Your task to perform on an android device: Go to privacy settings Image 0: 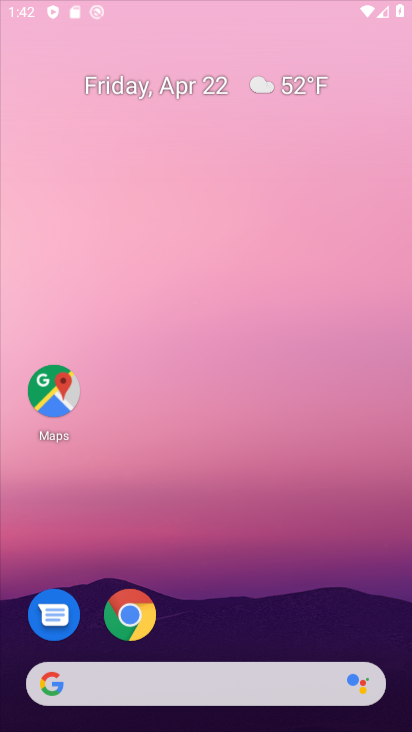
Step 0: click (335, 79)
Your task to perform on an android device: Go to privacy settings Image 1: 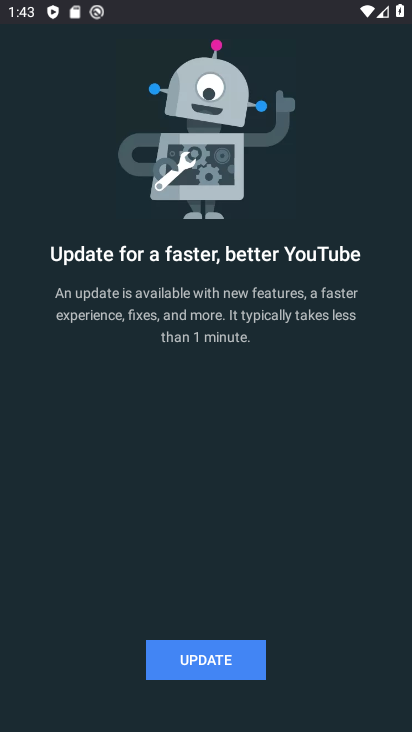
Step 1: press back button
Your task to perform on an android device: Go to privacy settings Image 2: 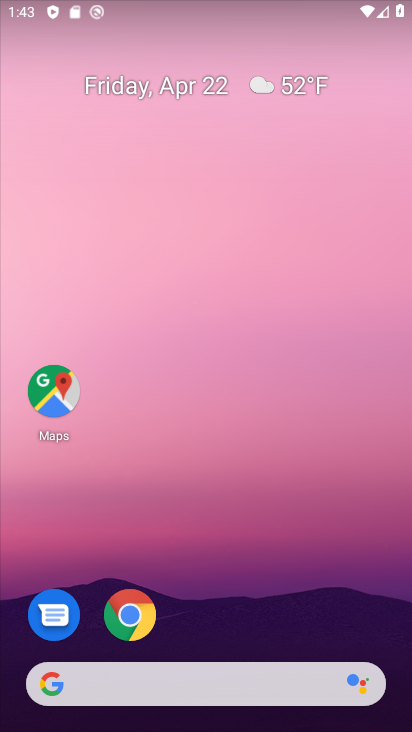
Step 2: click (129, 620)
Your task to perform on an android device: Go to privacy settings Image 3: 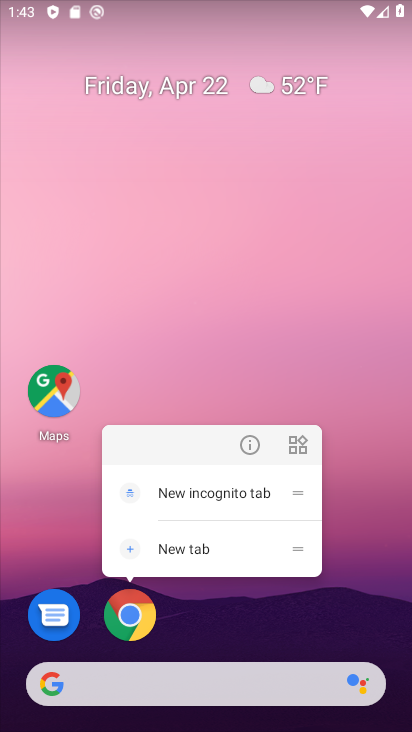
Step 3: click (129, 619)
Your task to perform on an android device: Go to privacy settings Image 4: 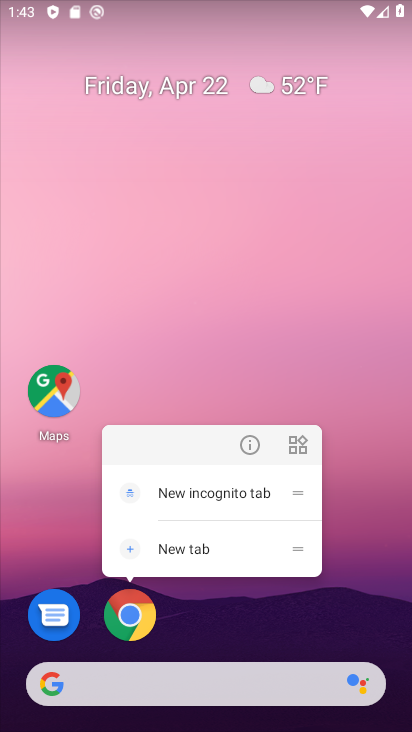
Step 4: click (129, 617)
Your task to perform on an android device: Go to privacy settings Image 5: 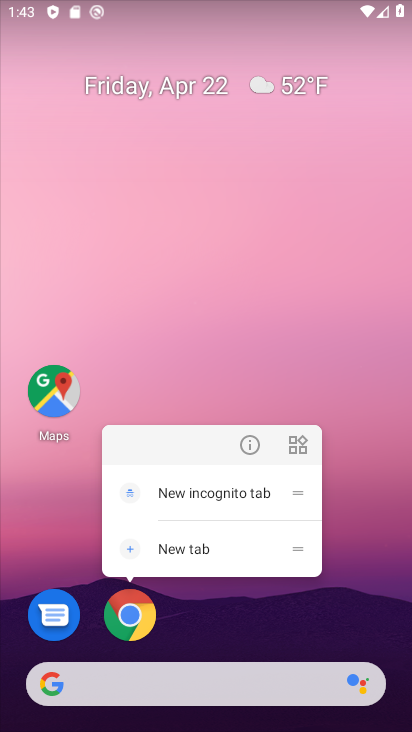
Step 5: click (144, 620)
Your task to perform on an android device: Go to privacy settings Image 6: 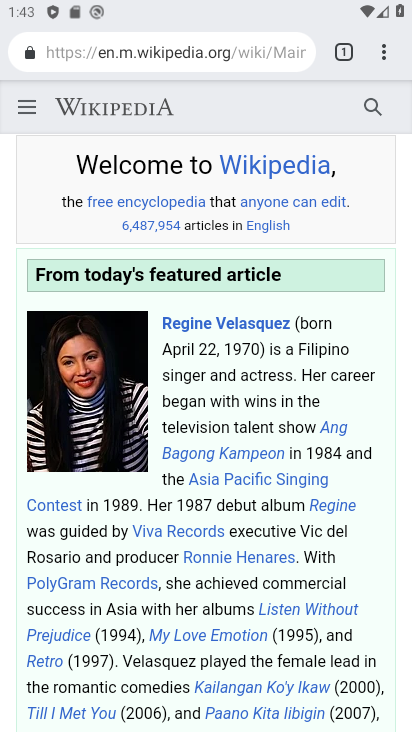
Step 6: drag from (380, 52) to (209, 630)
Your task to perform on an android device: Go to privacy settings Image 7: 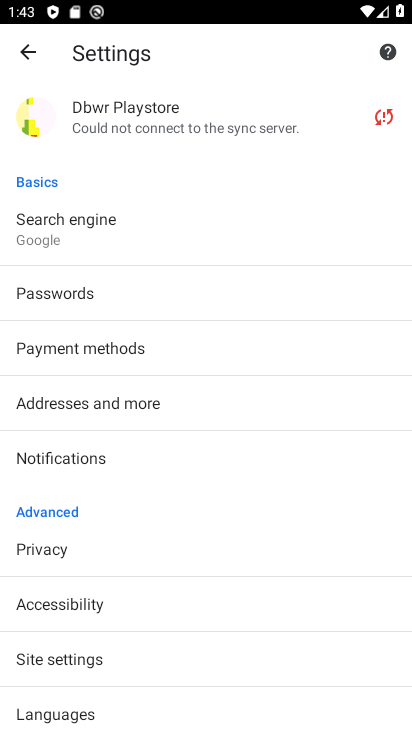
Step 7: click (129, 562)
Your task to perform on an android device: Go to privacy settings Image 8: 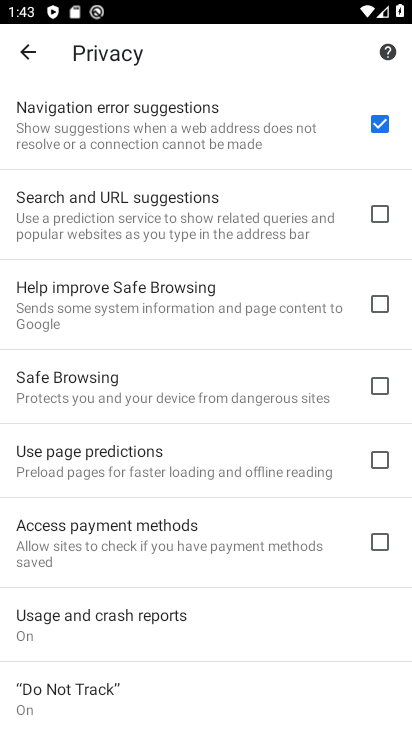
Step 8: task complete